Your task to perform on an android device: turn off priority inbox in the gmail app Image 0: 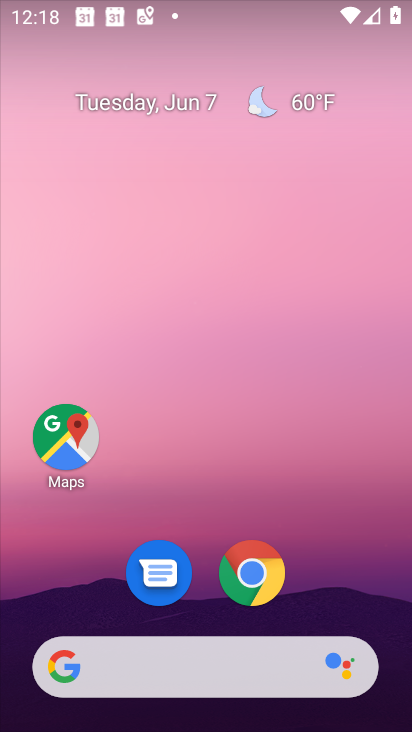
Step 0: press home button
Your task to perform on an android device: turn off priority inbox in the gmail app Image 1: 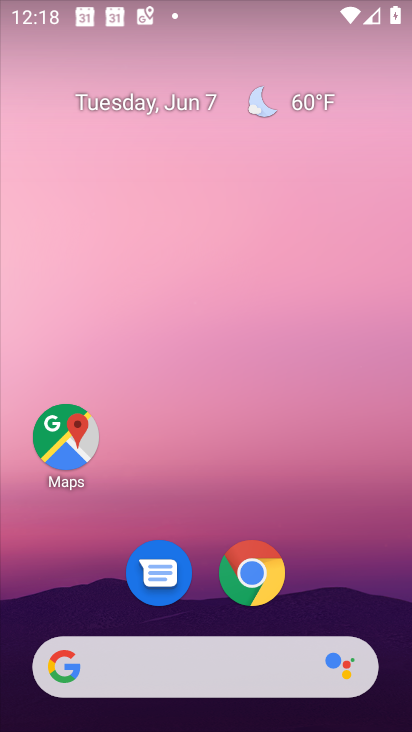
Step 1: drag from (374, 594) to (278, 2)
Your task to perform on an android device: turn off priority inbox in the gmail app Image 2: 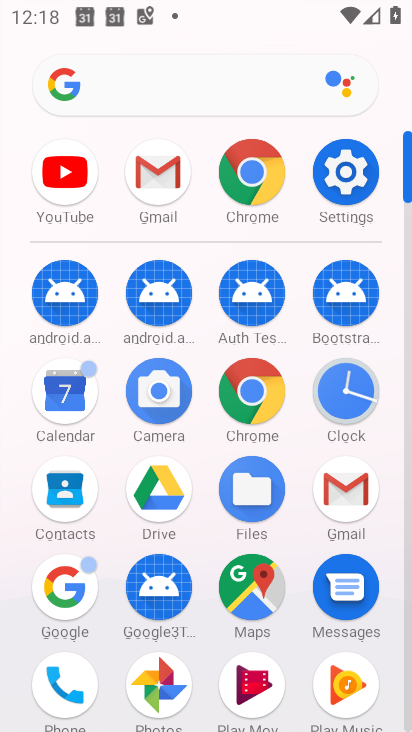
Step 2: click (150, 182)
Your task to perform on an android device: turn off priority inbox in the gmail app Image 3: 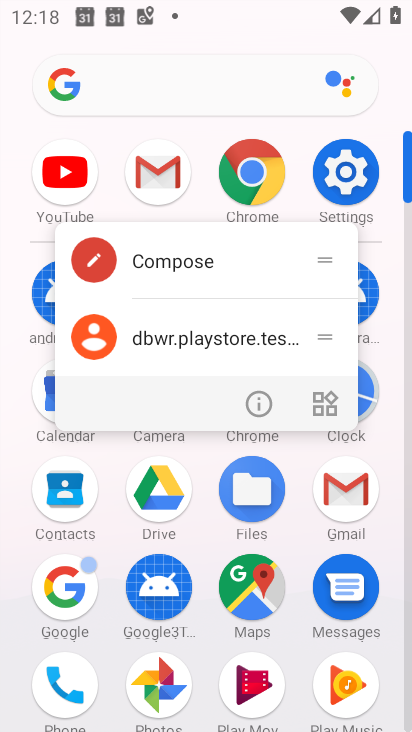
Step 3: click (161, 199)
Your task to perform on an android device: turn off priority inbox in the gmail app Image 4: 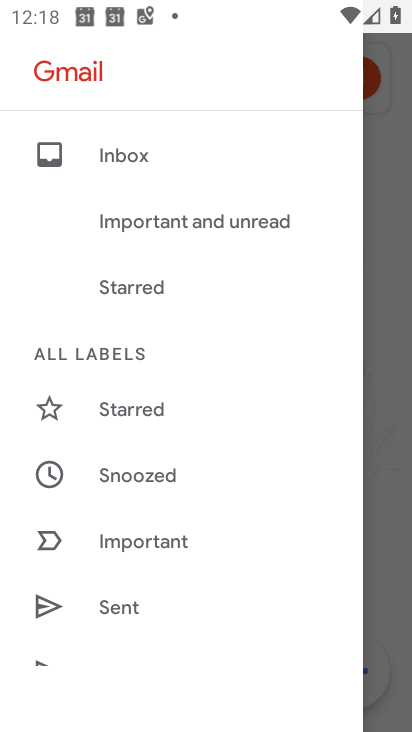
Step 4: drag from (173, 585) to (120, 4)
Your task to perform on an android device: turn off priority inbox in the gmail app Image 5: 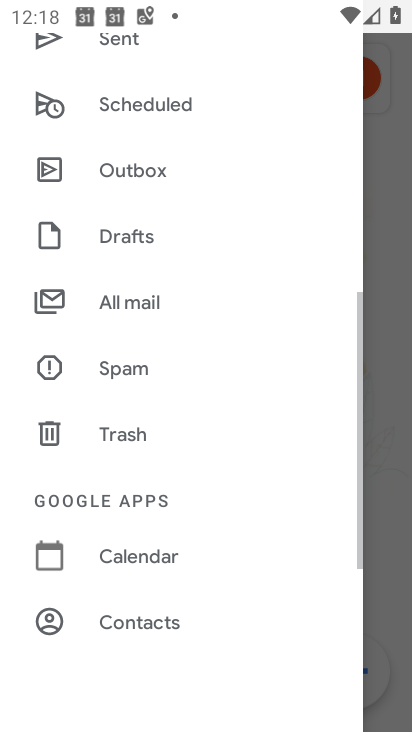
Step 5: drag from (228, 641) to (200, 127)
Your task to perform on an android device: turn off priority inbox in the gmail app Image 6: 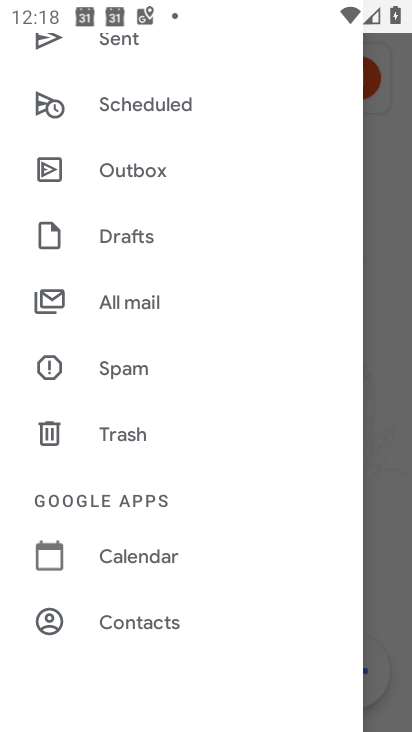
Step 6: drag from (151, 605) to (181, 248)
Your task to perform on an android device: turn off priority inbox in the gmail app Image 7: 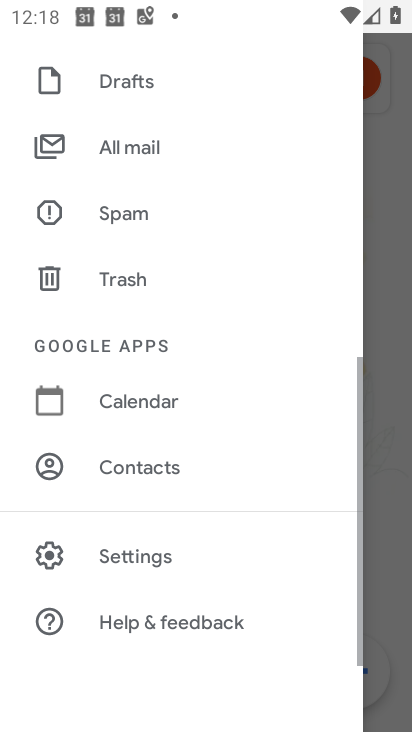
Step 7: click (160, 564)
Your task to perform on an android device: turn off priority inbox in the gmail app Image 8: 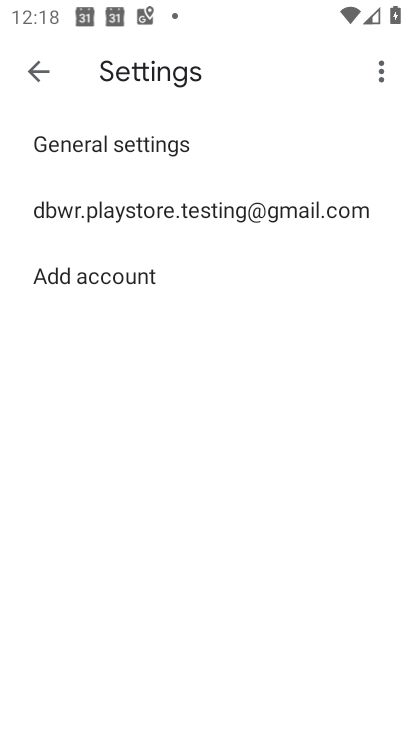
Step 8: click (273, 229)
Your task to perform on an android device: turn off priority inbox in the gmail app Image 9: 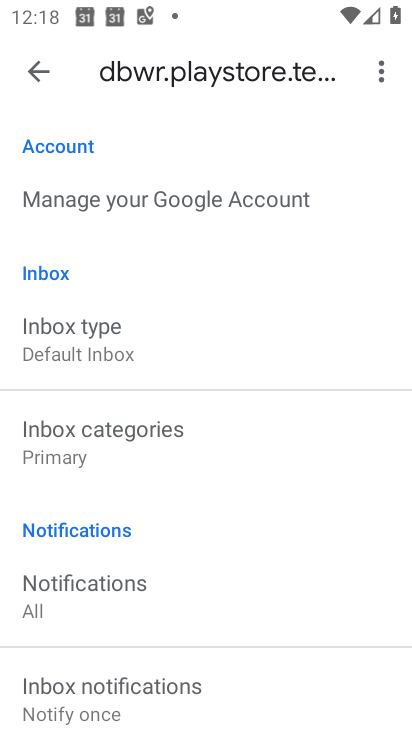
Step 9: click (138, 366)
Your task to perform on an android device: turn off priority inbox in the gmail app Image 10: 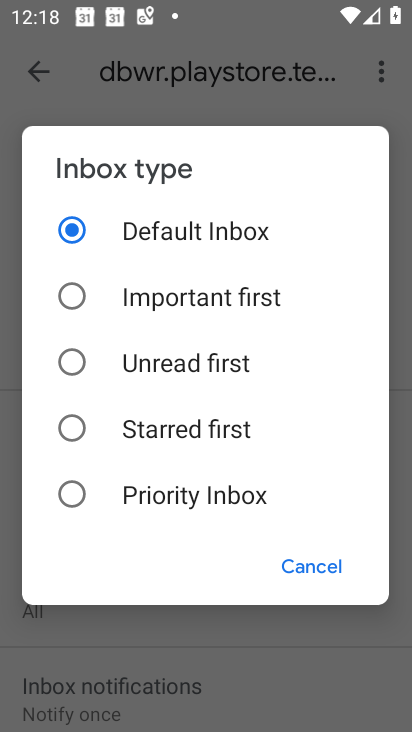
Step 10: task complete